Your task to perform on an android device: Open wifi settings Image 0: 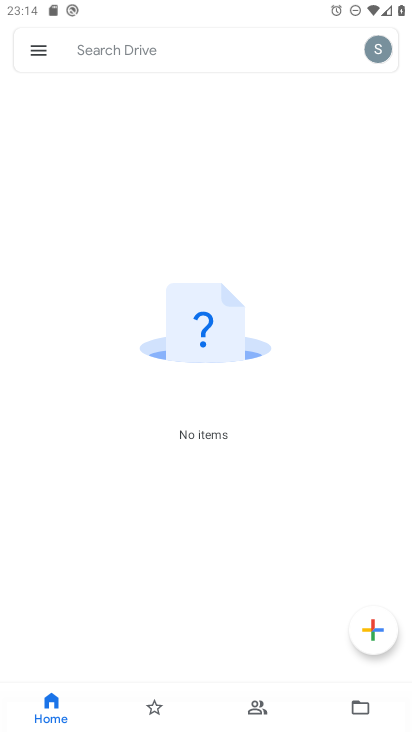
Step 0: press home button
Your task to perform on an android device: Open wifi settings Image 1: 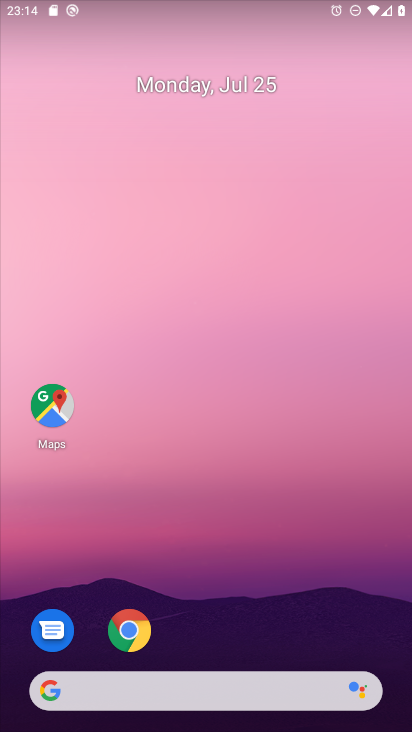
Step 1: drag from (279, 612) to (148, 99)
Your task to perform on an android device: Open wifi settings Image 2: 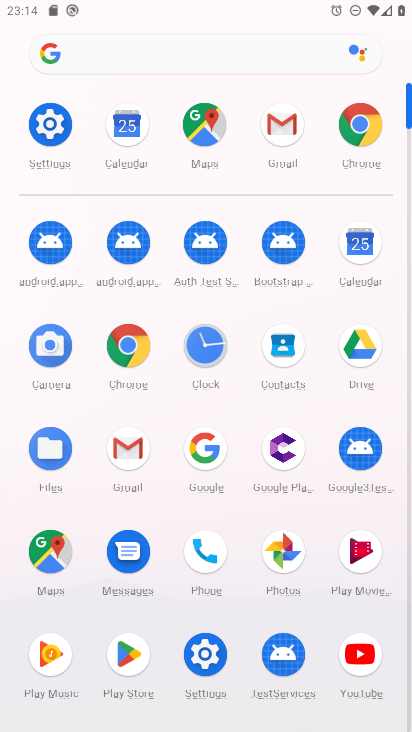
Step 2: click (54, 122)
Your task to perform on an android device: Open wifi settings Image 3: 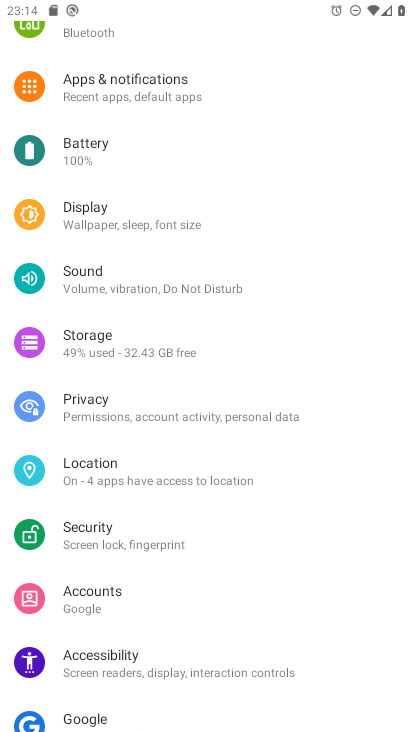
Step 3: drag from (203, 85) to (286, 464)
Your task to perform on an android device: Open wifi settings Image 4: 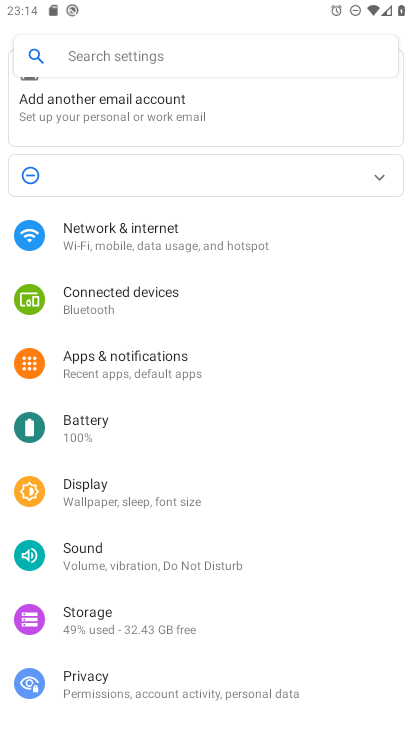
Step 4: click (107, 250)
Your task to perform on an android device: Open wifi settings Image 5: 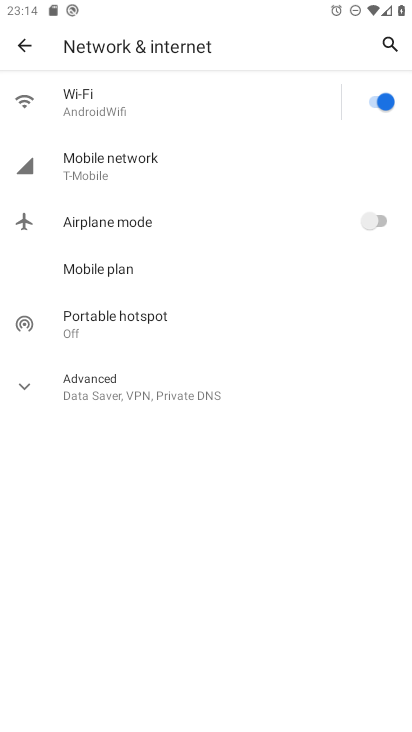
Step 5: click (142, 94)
Your task to perform on an android device: Open wifi settings Image 6: 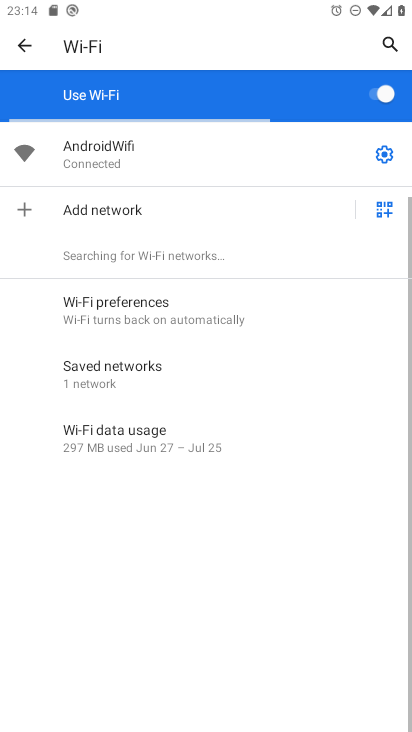
Step 6: click (381, 155)
Your task to perform on an android device: Open wifi settings Image 7: 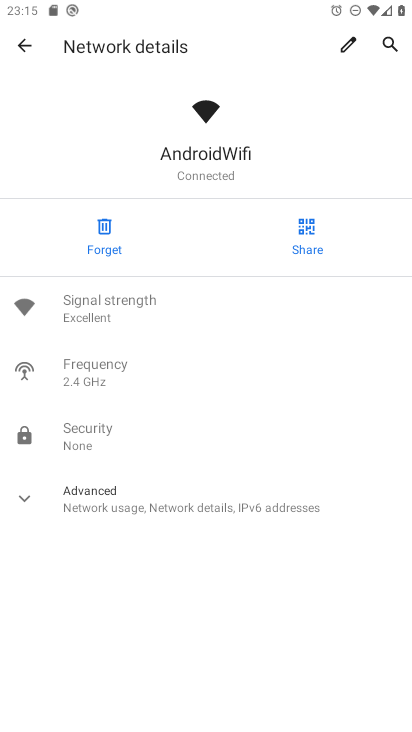
Step 7: task complete